Your task to perform on an android device: What's on my calendar tomorrow? Image 0: 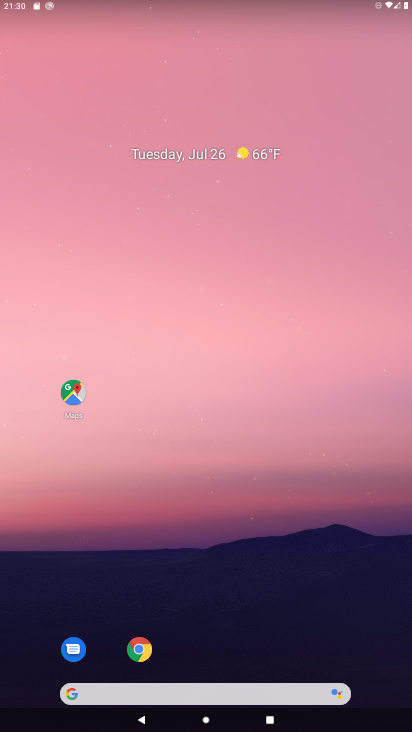
Step 0: drag from (130, 656) to (165, 101)
Your task to perform on an android device: What's on my calendar tomorrow? Image 1: 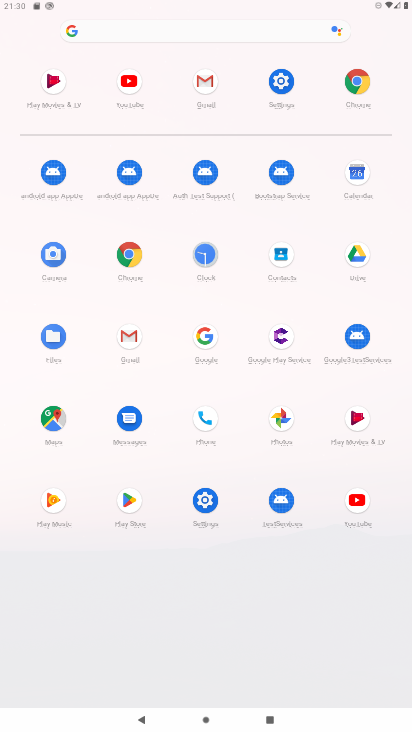
Step 1: click (361, 179)
Your task to perform on an android device: What's on my calendar tomorrow? Image 2: 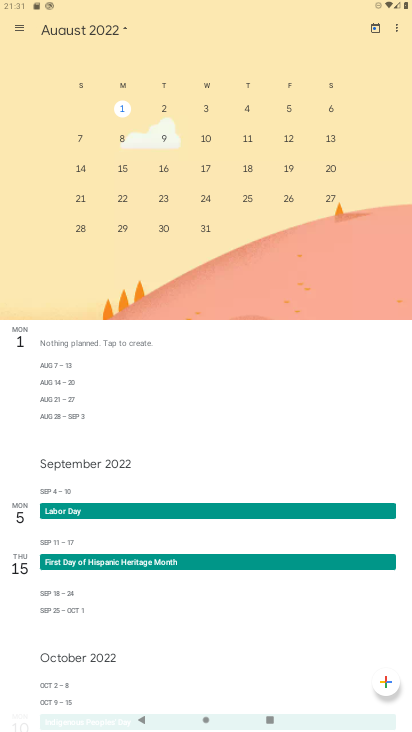
Step 2: drag from (117, 230) to (409, 483)
Your task to perform on an android device: What's on my calendar tomorrow? Image 3: 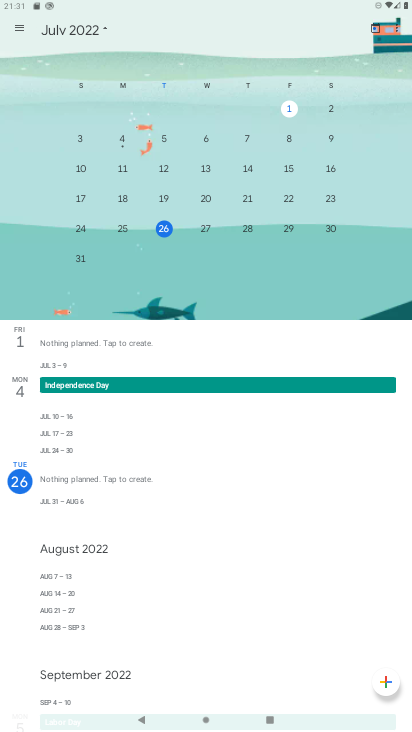
Step 3: click (210, 227)
Your task to perform on an android device: What's on my calendar tomorrow? Image 4: 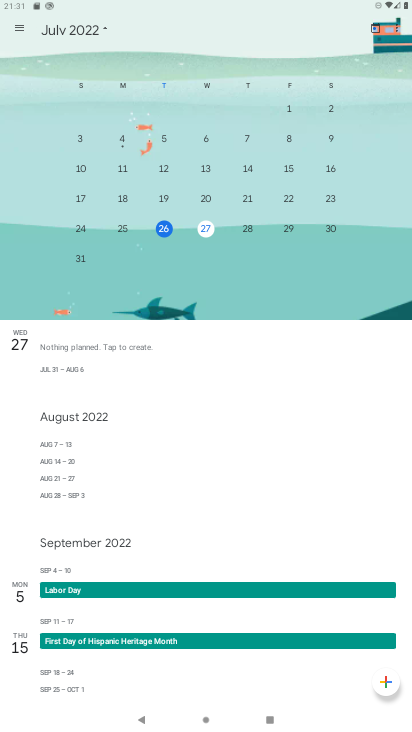
Step 4: click (19, 31)
Your task to perform on an android device: What's on my calendar tomorrow? Image 5: 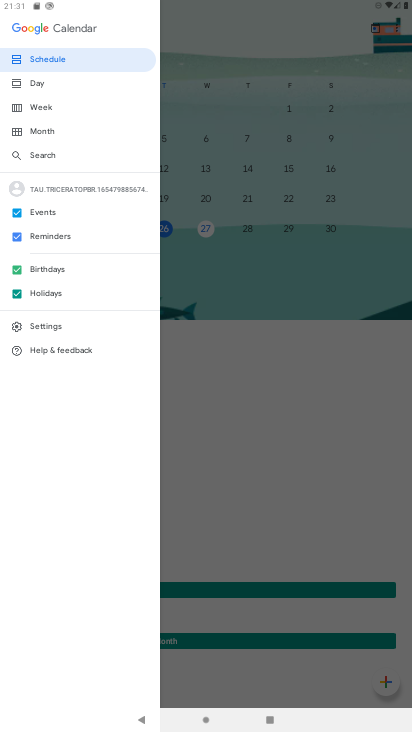
Step 5: click (69, 56)
Your task to perform on an android device: What's on my calendar tomorrow? Image 6: 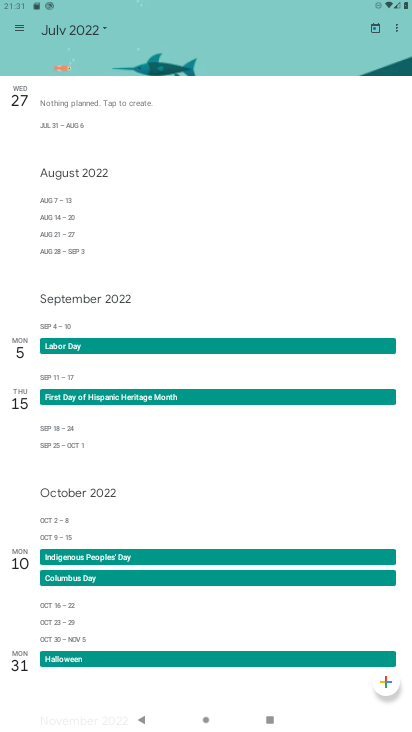
Step 6: task complete